Your task to perform on an android device: add a contact in the contacts app Image 0: 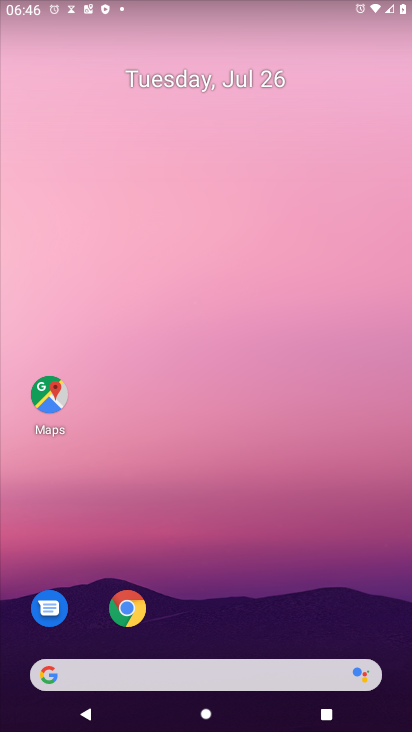
Step 0: press home button
Your task to perform on an android device: add a contact in the contacts app Image 1: 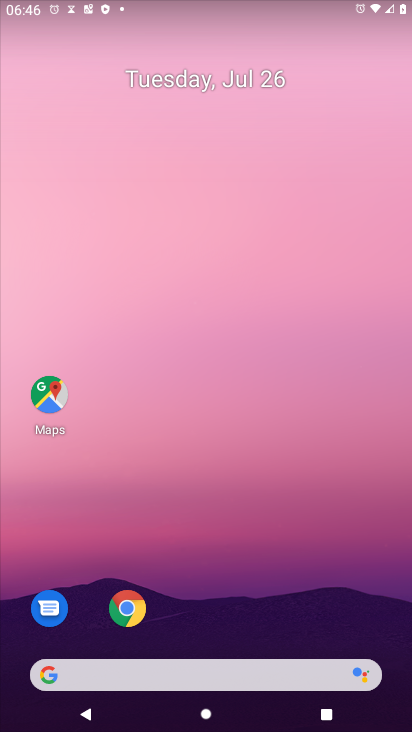
Step 1: drag from (242, 638) to (261, 159)
Your task to perform on an android device: add a contact in the contacts app Image 2: 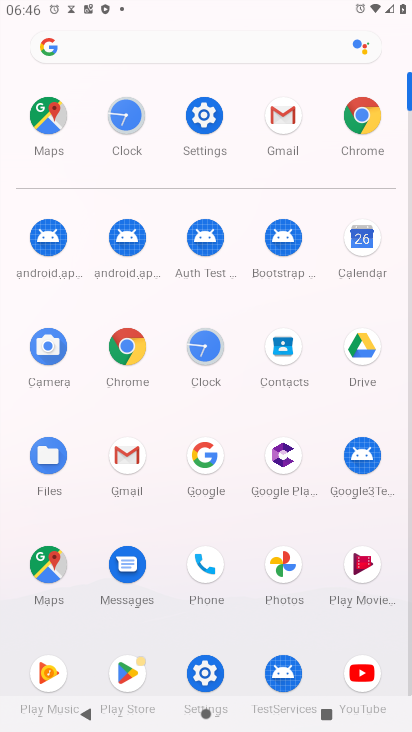
Step 2: click (286, 348)
Your task to perform on an android device: add a contact in the contacts app Image 3: 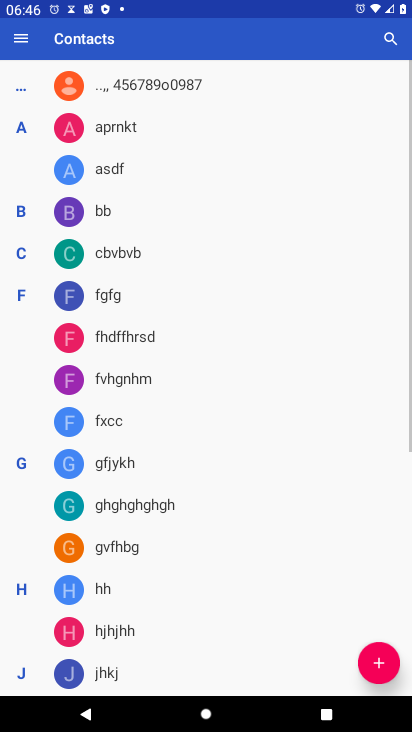
Step 3: click (382, 670)
Your task to perform on an android device: add a contact in the contacts app Image 4: 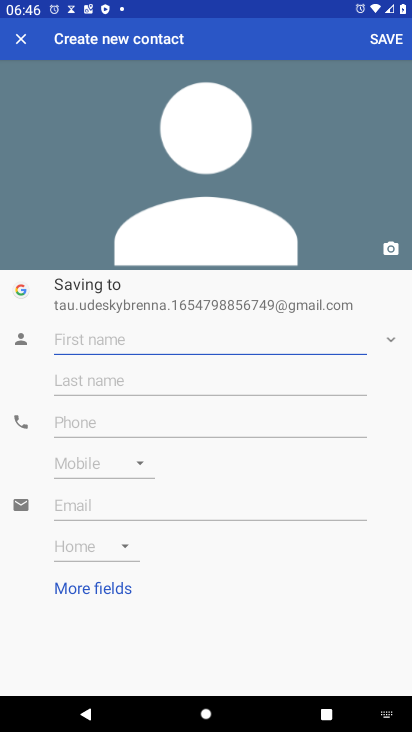
Step 4: type "kmmm"
Your task to perform on an android device: add a contact in the contacts app Image 5: 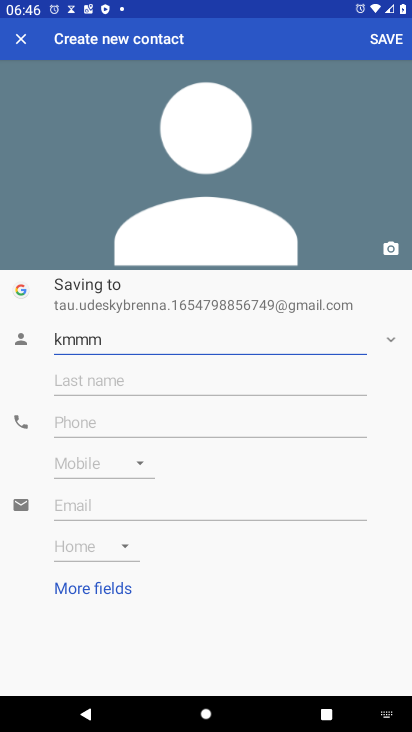
Step 5: click (95, 417)
Your task to perform on an android device: add a contact in the contacts app Image 6: 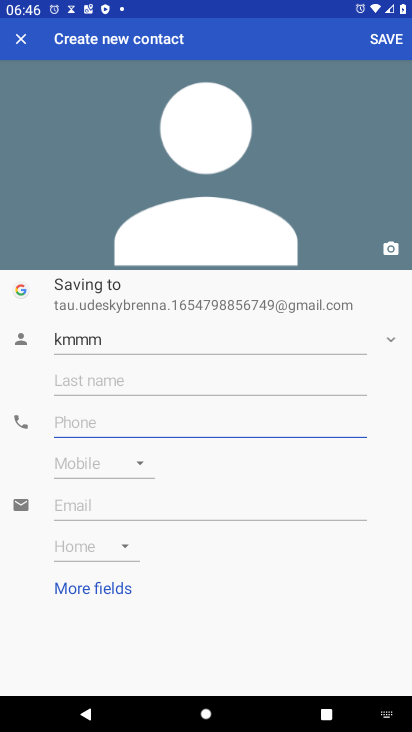
Step 6: type "89799"
Your task to perform on an android device: add a contact in the contacts app Image 7: 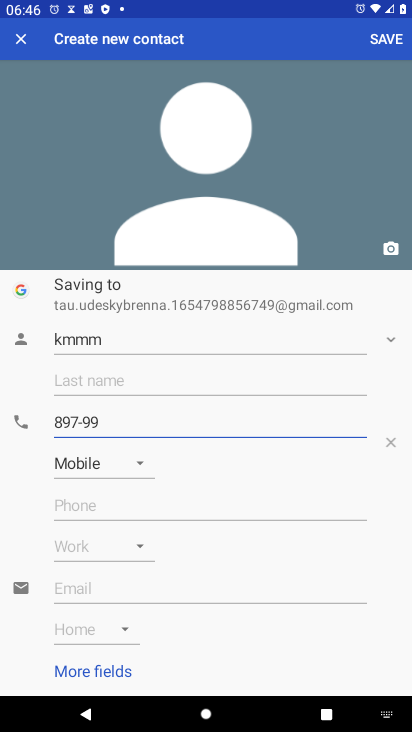
Step 7: click (385, 42)
Your task to perform on an android device: add a contact in the contacts app Image 8: 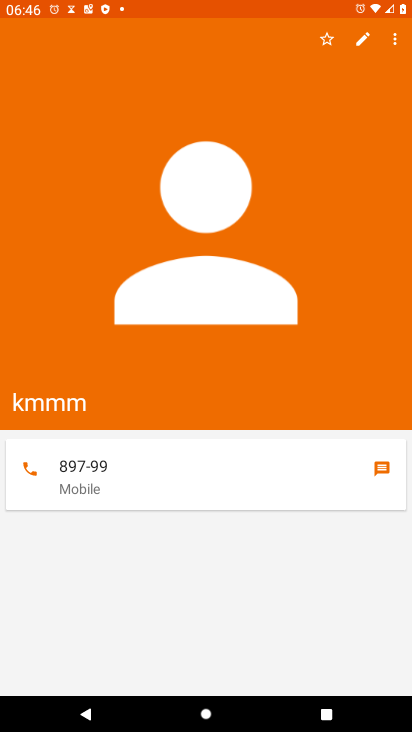
Step 8: task complete